Your task to perform on an android device: toggle sleep mode Image 0: 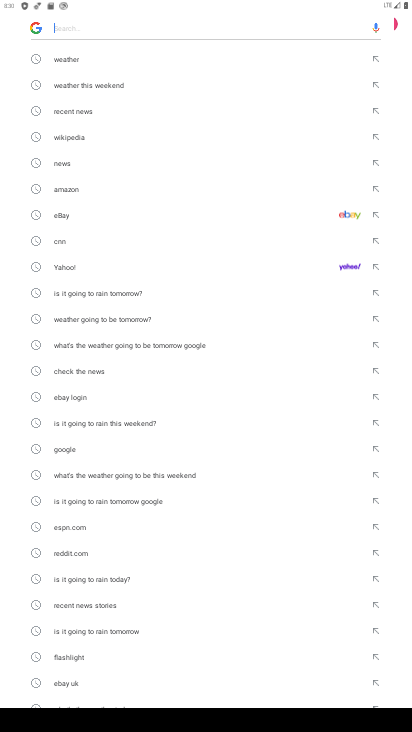
Step 0: press home button
Your task to perform on an android device: toggle sleep mode Image 1: 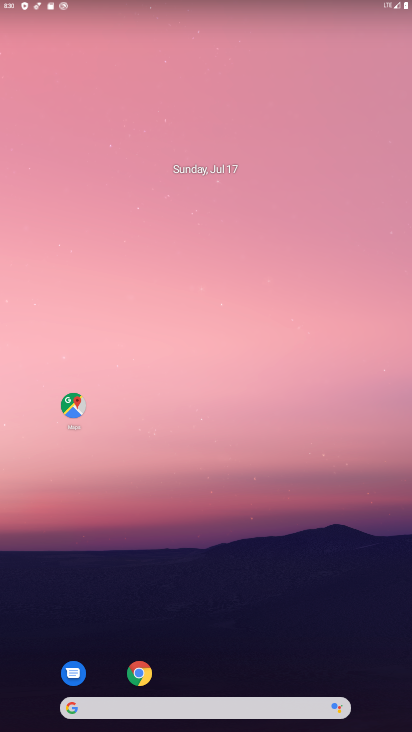
Step 1: drag from (289, 690) to (214, 51)
Your task to perform on an android device: toggle sleep mode Image 2: 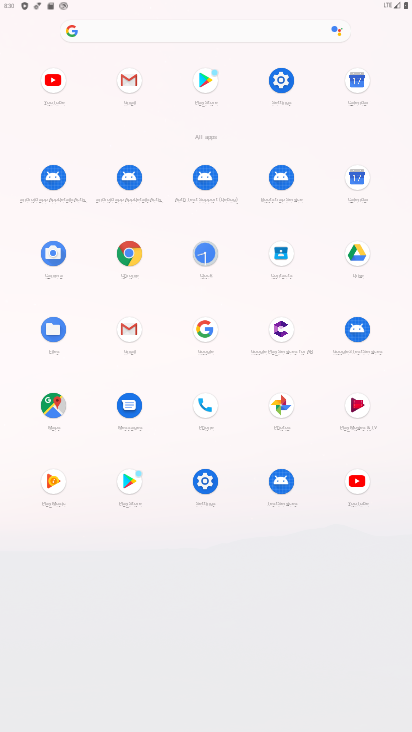
Step 2: click (280, 86)
Your task to perform on an android device: toggle sleep mode Image 3: 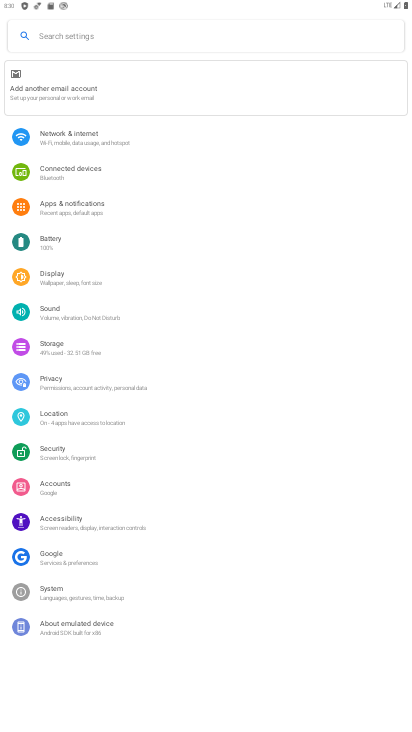
Step 3: click (49, 280)
Your task to perform on an android device: toggle sleep mode Image 4: 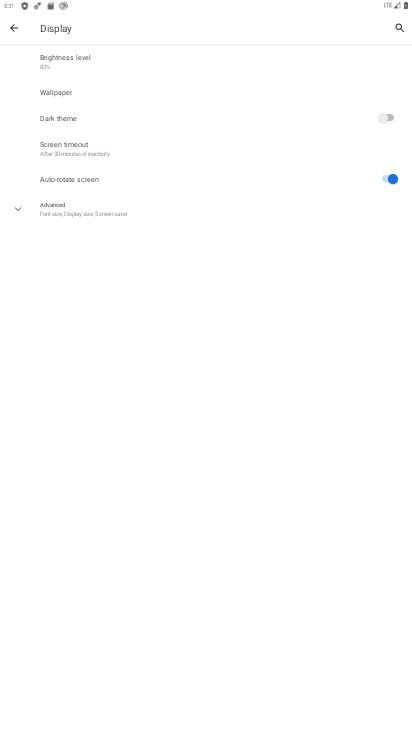
Step 4: task complete